Your task to perform on an android device: turn pop-ups off in chrome Image 0: 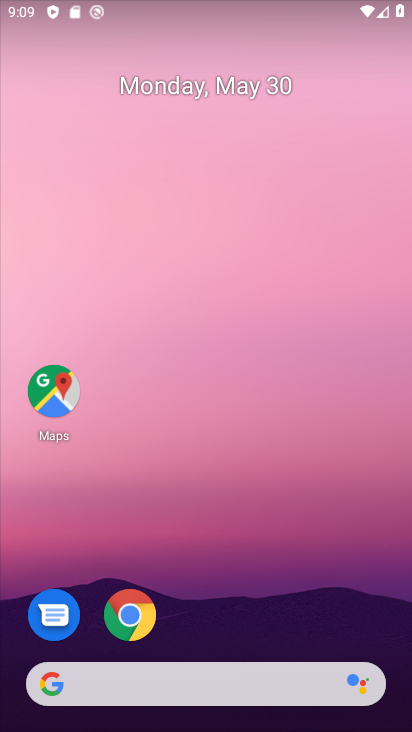
Step 0: click (119, 615)
Your task to perform on an android device: turn pop-ups off in chrome Image 1: 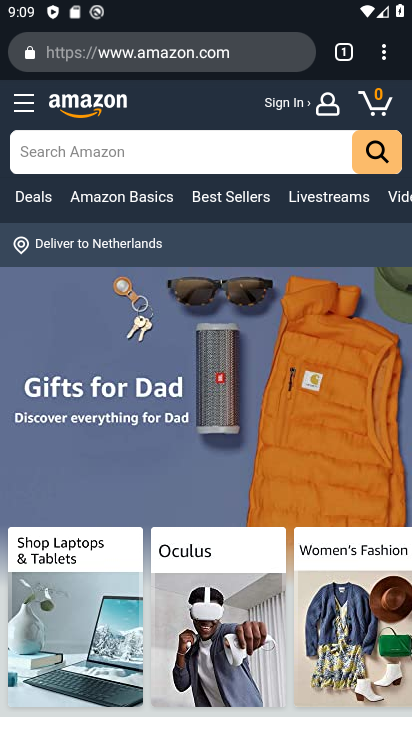
Step 1: click (386, 42)
Your task to perform on an android device: turn pop-ups off in chrome Image 2: 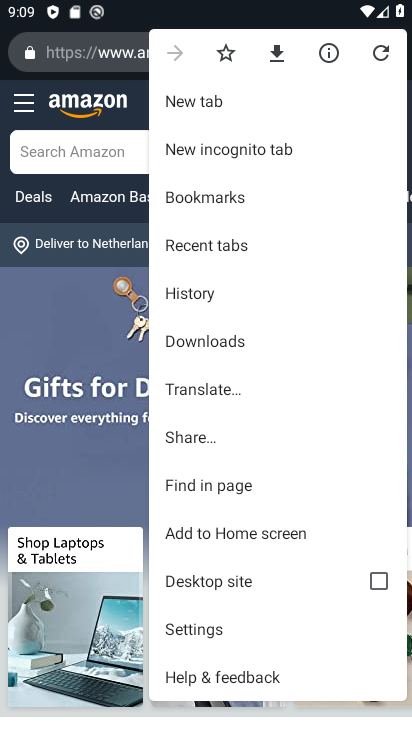
Step 2: click (211, 621)
Your task to perform on an android device: turn pop-ups off in chrome Image 3: 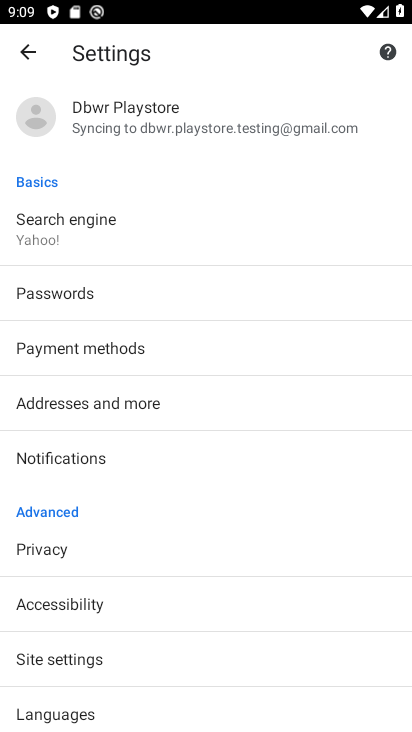
Step 3: click (69, 651)
Your task to perform on an android device: turn pop-ups off in chrome Image 4: 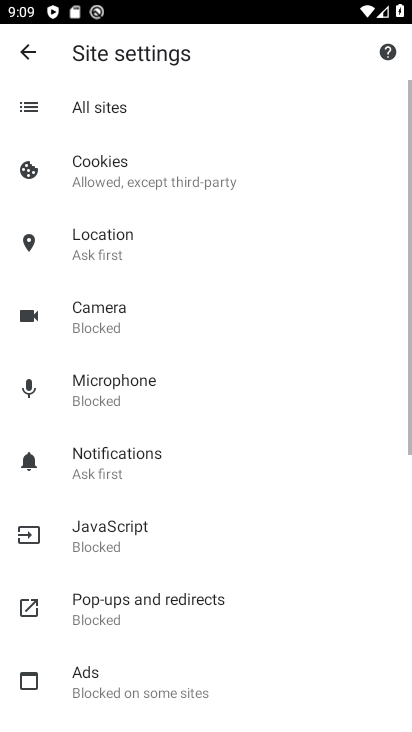
Step 4: click (149, 588)
Your task to perform on an android device: turn pop-ups off in chrome Image 5: 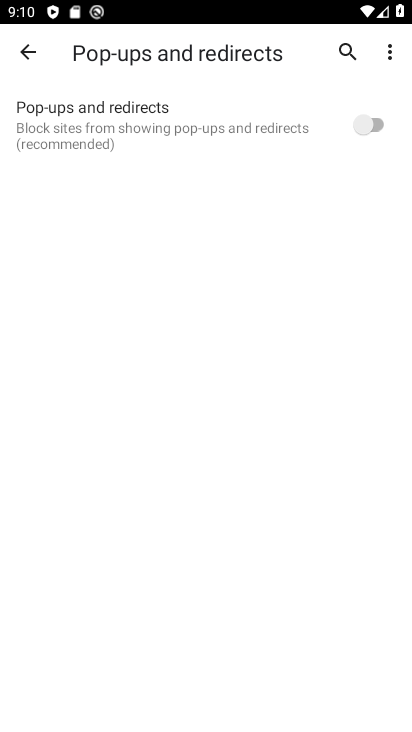
Step 5: task complete